Your task to perform on an android device: open app "ZOOM Cloud Meetings" Image 0: 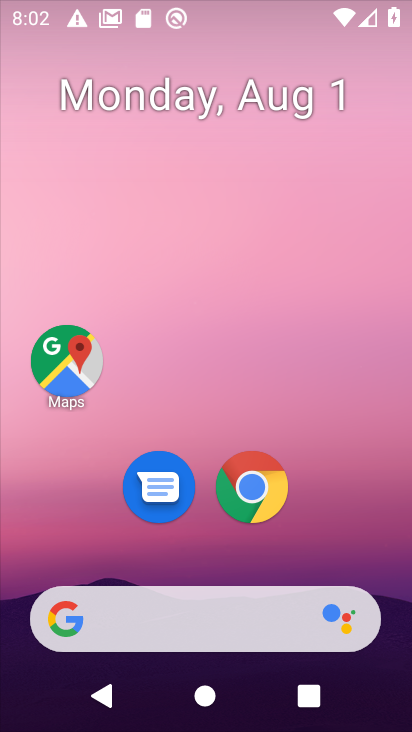
Step 0: drag from (384, 513) to (375, 46)
Your task to perform on an android device: open app "ZOOM Cloud Meetings" Image 1: 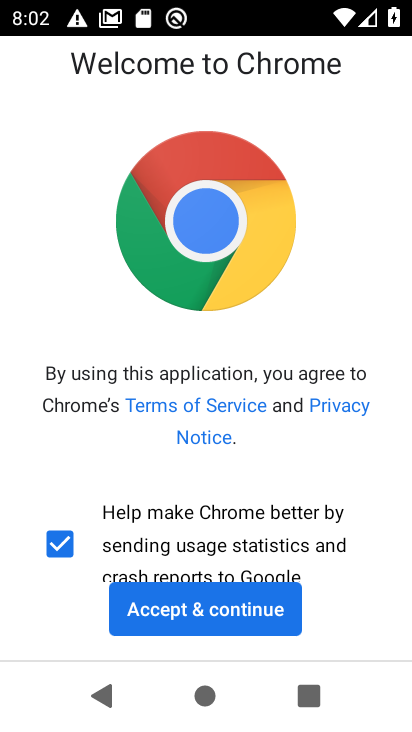
Step 1: press home button
Your task to perform on an android device: open app "ZOOM Cloud Meetings" Image 2: 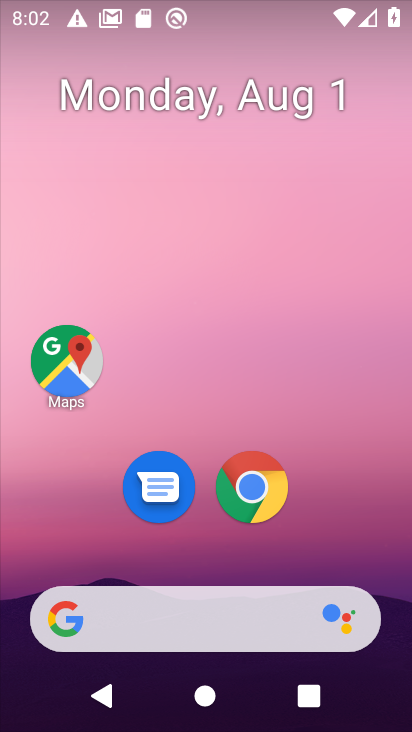
Step 2: drag from (371, 555) to (363, 89)
Your task to perform on an android device: open app "ZOOM Cloud Meetings" Image 3: 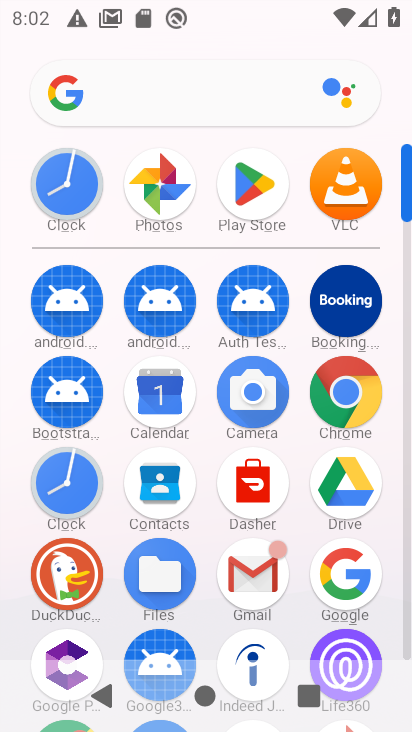
Step 3: click (255, 192)
Your task to perform on an android device: open app "ZOOM Cloud Meetings" Image 4: 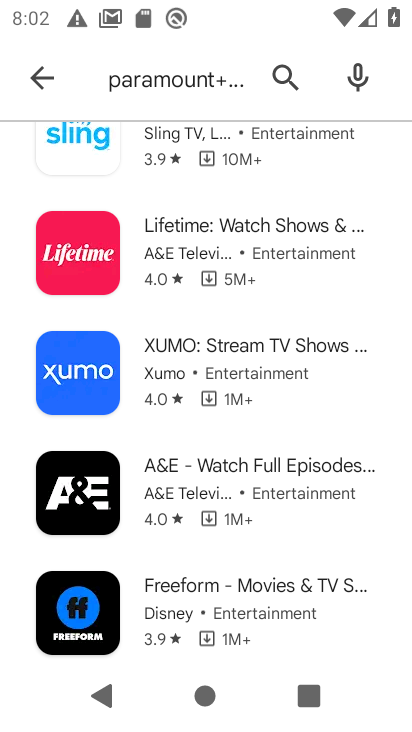
Step 4: click (284, 71)
Your task to perform on an android device: open app "ZOOM Cloud Meetings" Image 5: 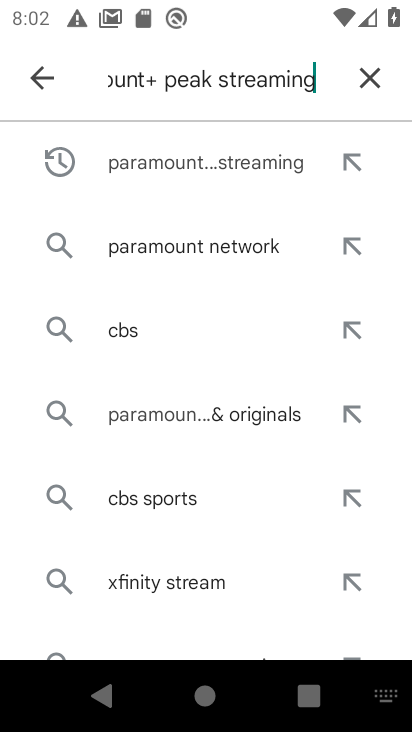
Step 5: click (366, 77)
Your task to perform on an android device: open app "ZOOM Cloud Meetings" Image 6: 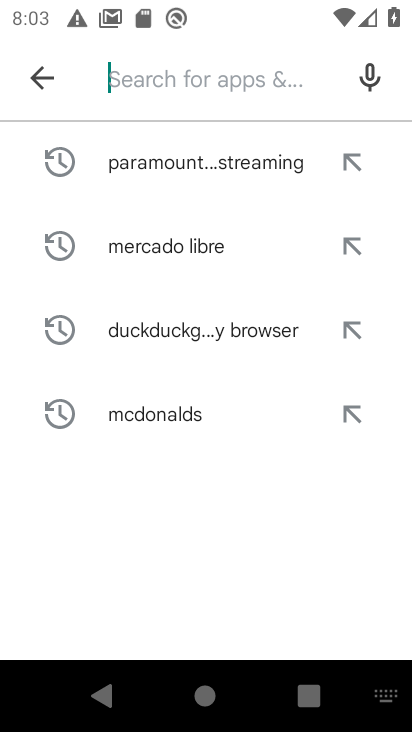
Step 6: type "zoom cloud meetings"
Your task to perform on an android device: open app "ZOOM Cloud Meetings" Image 7: 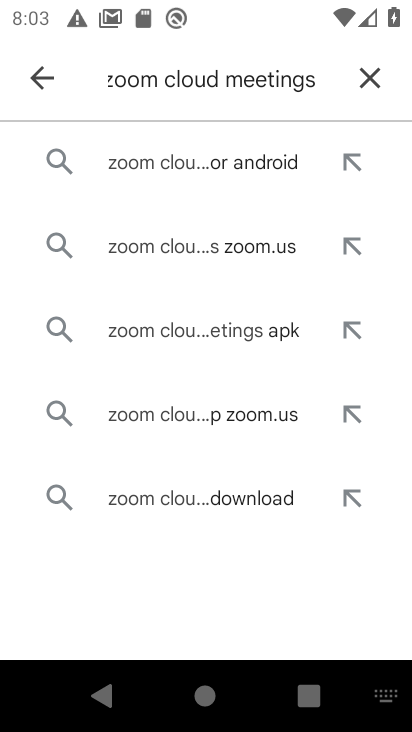
Step 7: click (278, 155)
Your task to perform on an android device: open app "ZOOM Cloud Meetings" Image 8: 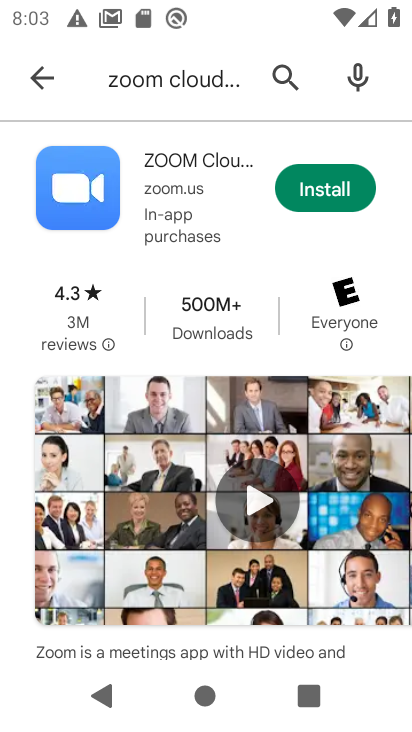
Step 8: task complete